Your task to perform on an android device: change the clock display to analog Image 0: 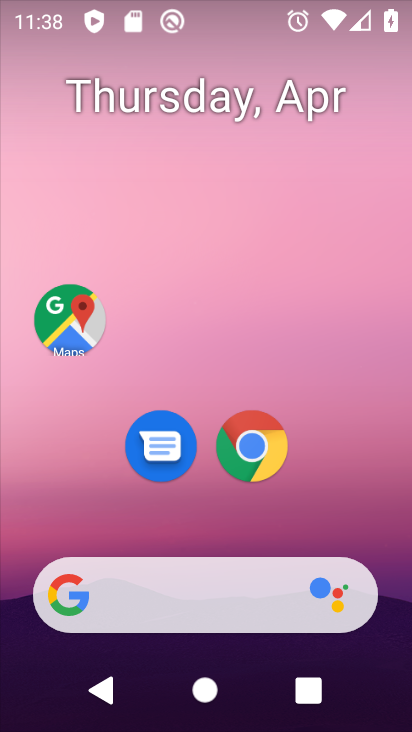
Step 0: drag from (377, 536) to (326, 257)
Your task to perform on an android device: change the clock display to analog Image 1: 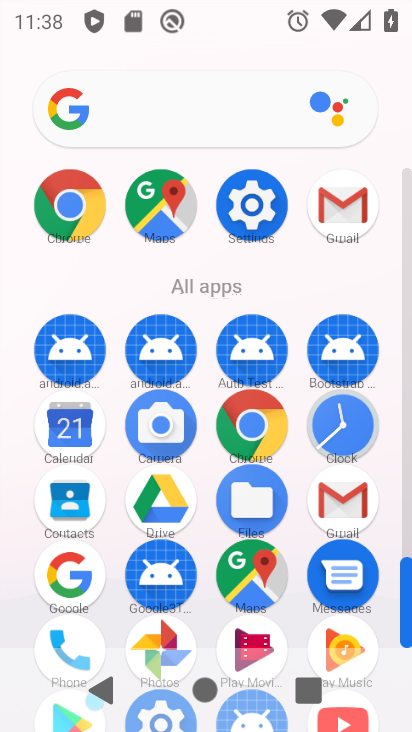
Step 1: click (354, 425)
Your task to perform on an android device: change the clock display to analog Image 2: 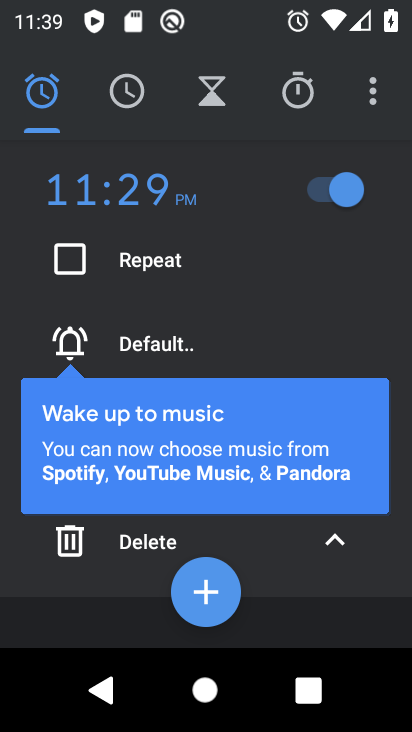
Step 2: click (372, 84)
Your task to perform on an android device: change the clock display to analog Image 3: 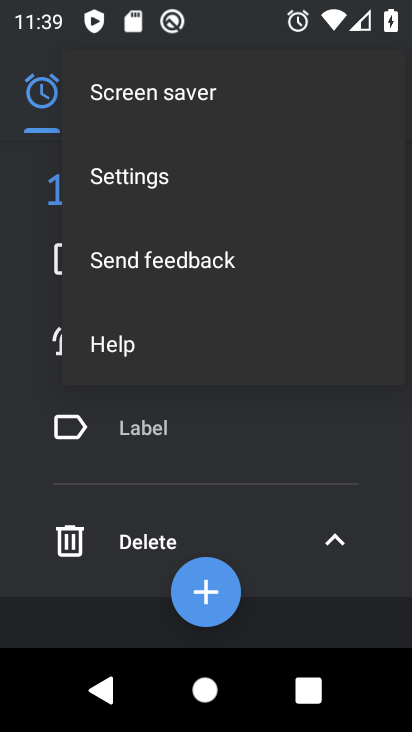
Step 3: click (285, 180)
Your task to perform on an android device: change the clock display to analog Image 4: 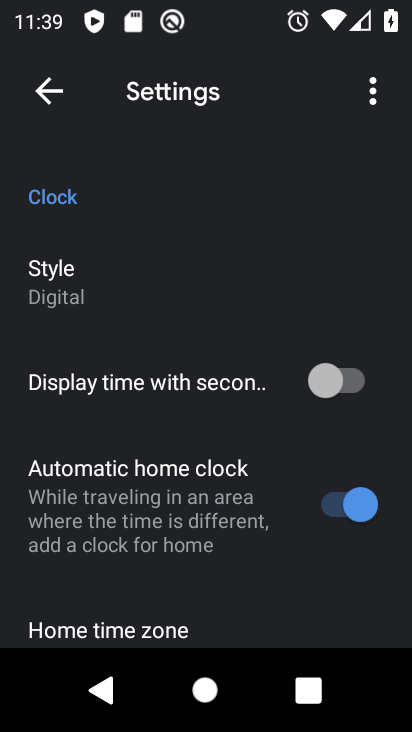
Step 4: click (166, 266)
Your task to perform on an android device: change the clock display to analog Image 5: 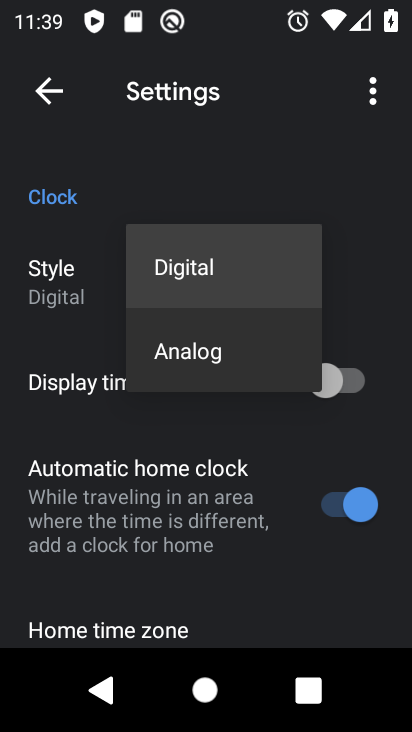
Step 5: click (188, 340)
Your task to perform on an android device: change the clock display to analog Image 6: 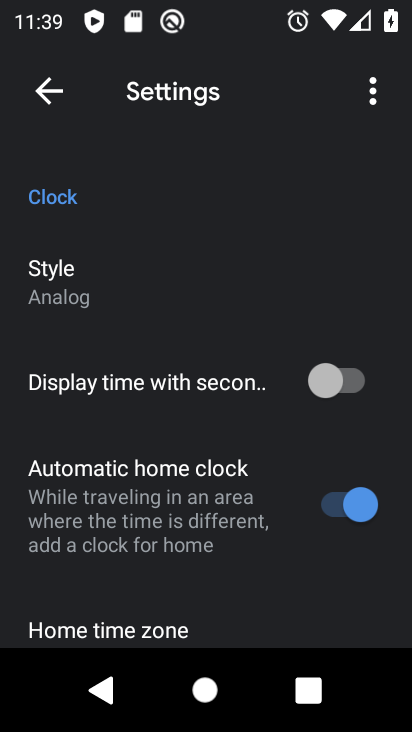
Step 6: task complete